Your task to perform on an android device: What's on my calendar today? Image 0: 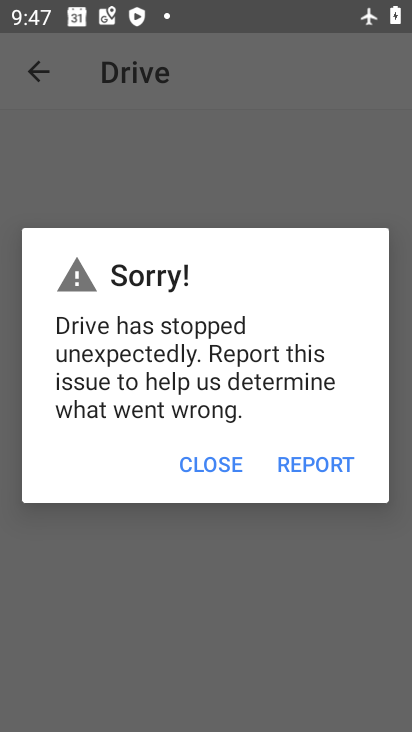
Step 0: press home button
Your task to perform on an android device: What's on my calendar today? Image 1: 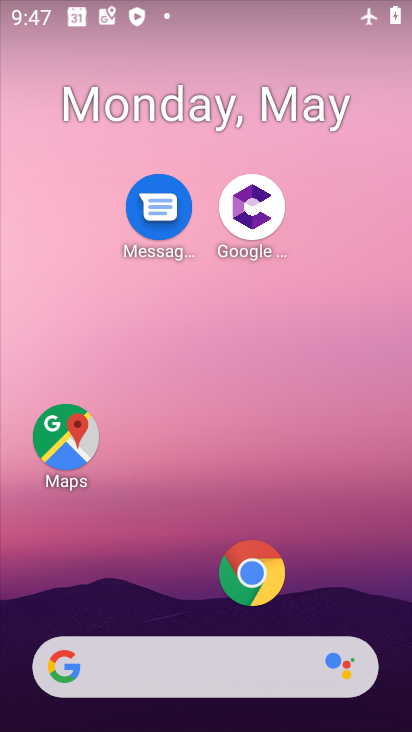
Step 1: drag from (205, 581) to (280, 134)
Your task to perform on an android device: What's on my calendar today? Image 2: 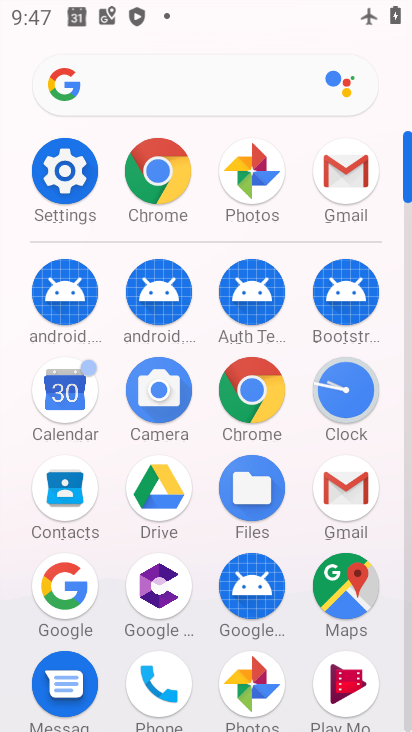
Step 2: click (67, 399)
Your task to perform on an android device: What's on my calendar today? Image 3: 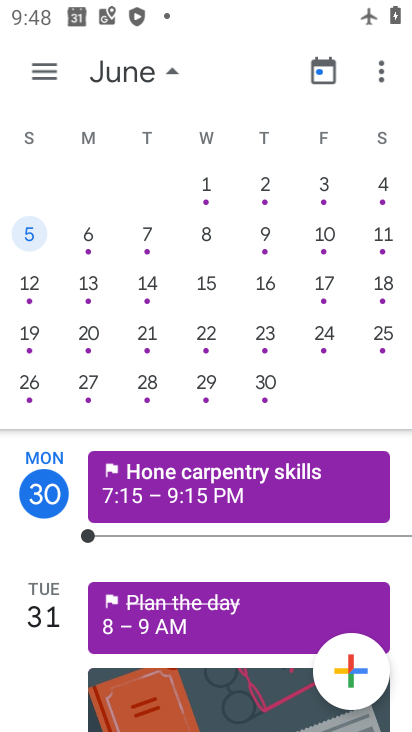
Step 3: drag from (64, 294) to (410, 338)
Your task to perform on an android device: What's on my calendar today? Image 4: 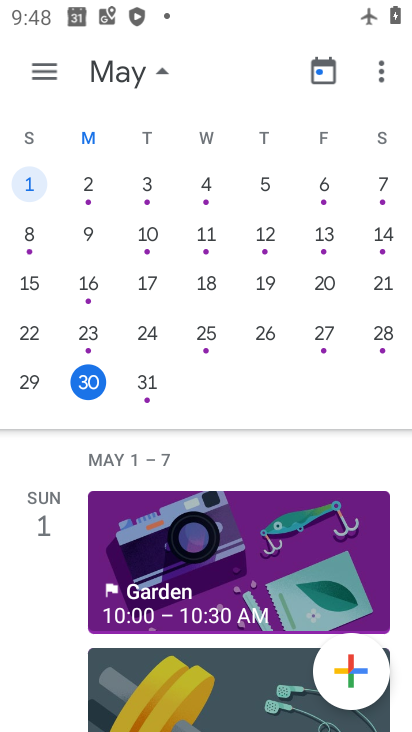
Step 4: click (91, 383)
Your task to perform on an android device: What's on my calendar today? Image 5: 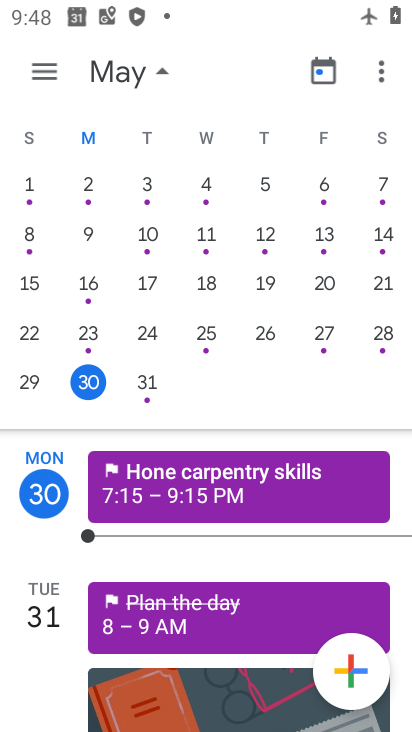
Step 5: task complete